Your task to perform on an android device: Go to sound settings Image 0: 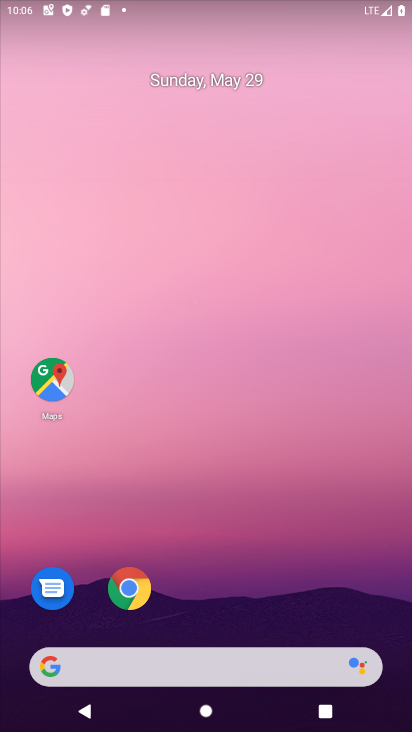
Step 0: drag from (187, 608) to (233, 178)
Your task to perform on an android device: Go to sound settings Image 1: 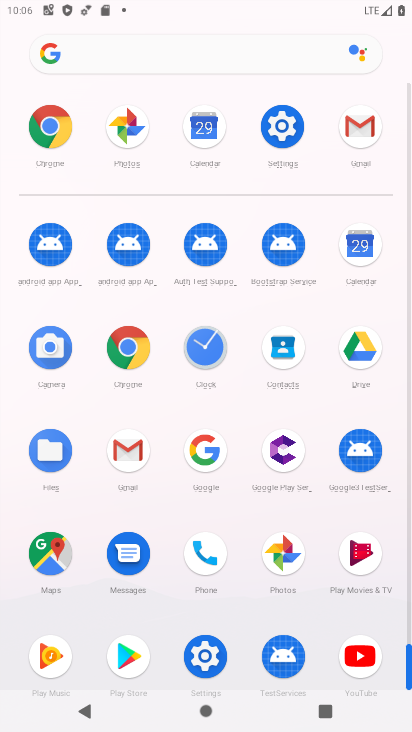
Step 1: click (186, 654)
Your task to perform on an android device: Go to sound settings Image 2: 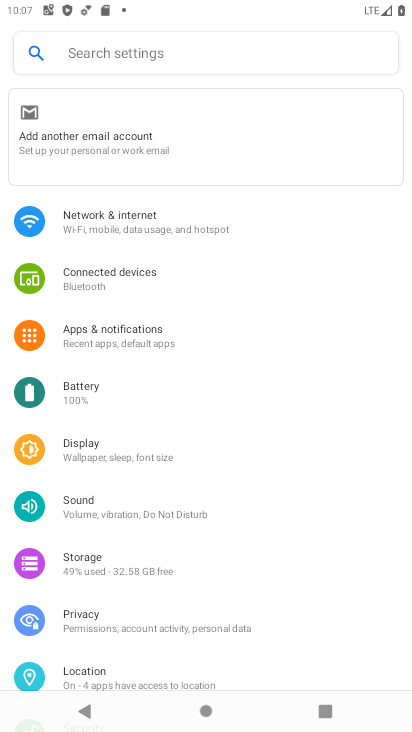
Step 2: drag from (207, 611) to (215, 511)
Your task to perform on an android device: Go to sound settings Image 3: 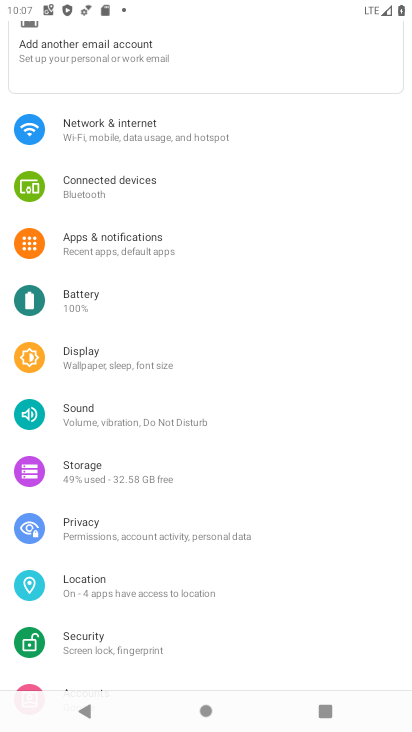
Step 3: click (184, 430)
Your task to perform on an android device: Go to sound settings Image 4: 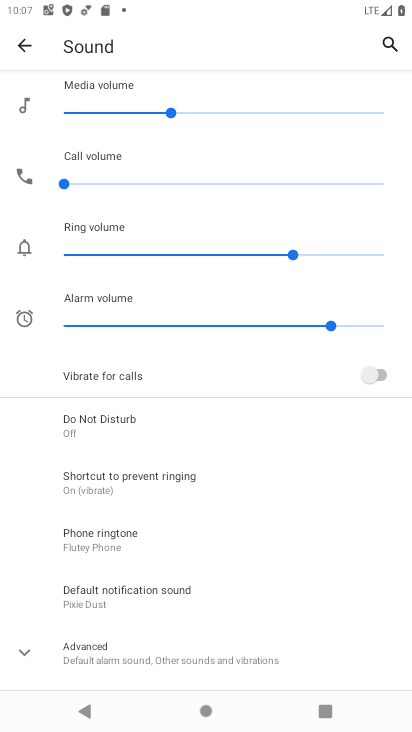
Step 4: task complete